Your task to perform on an android device: change notifications settings Image 0: 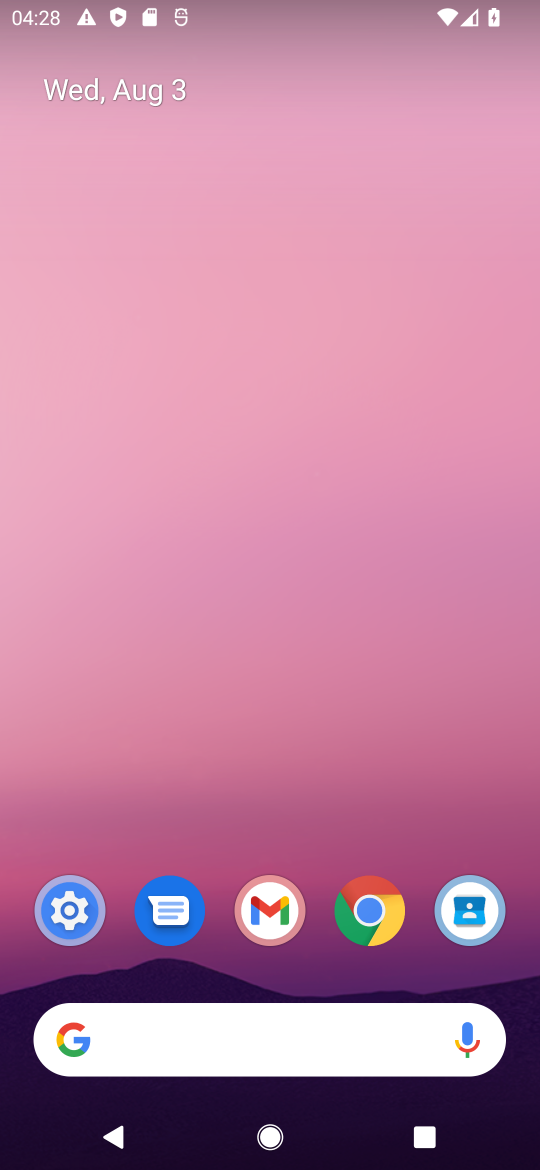
Step 0: drag from (324, 831) to (319, 36)
Your task to perform on an android device: change notifications settings Image 1: 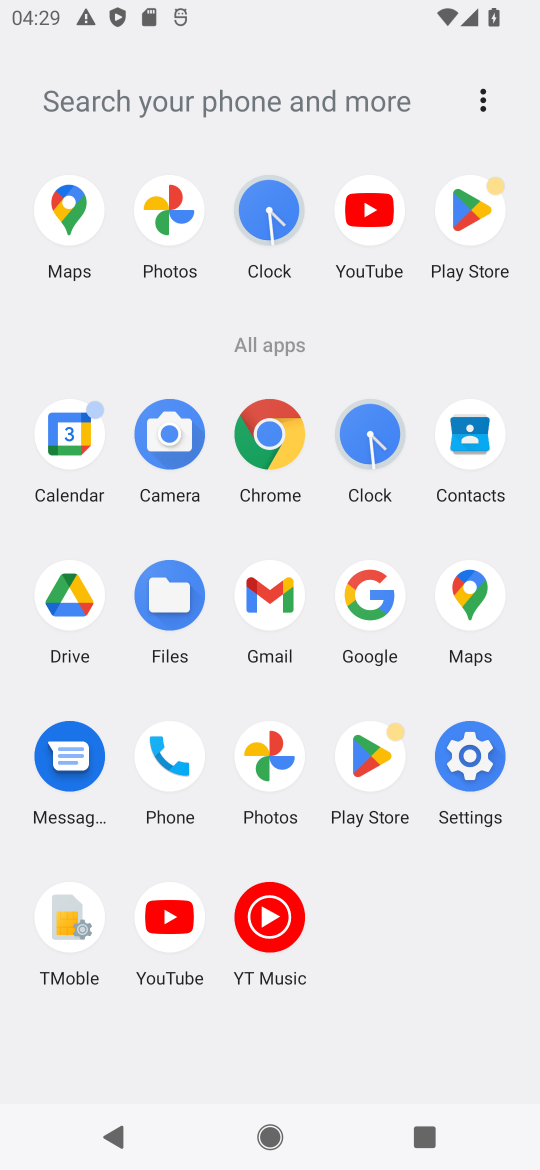
Step 1: click (473, 755)
Your task to perform on an android device: change notifications settings Image 2: 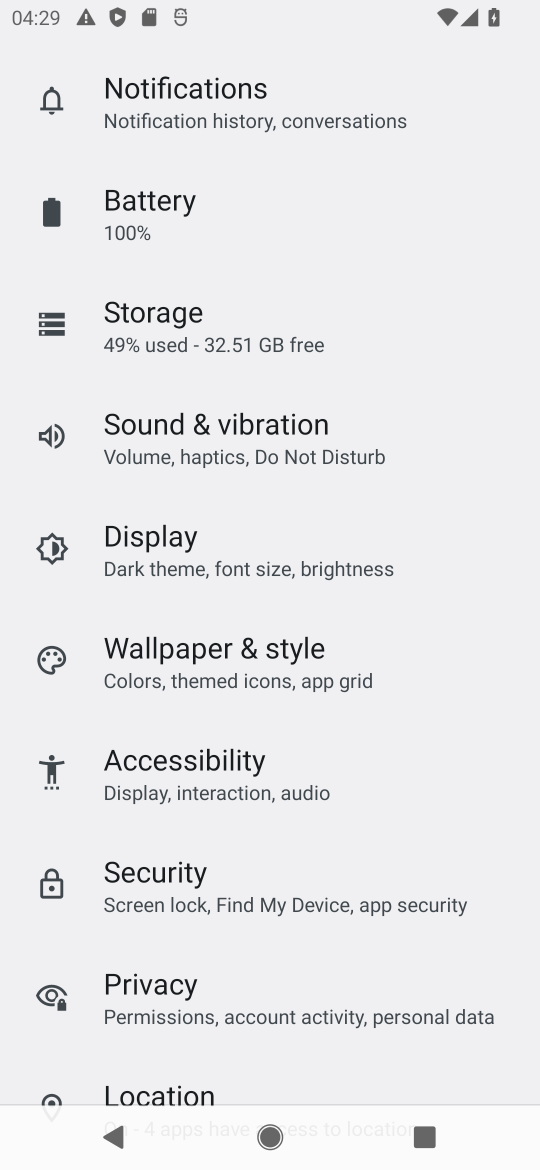
Step 2: click (128, 112)
Your task to perform on an android device: change notifications settings Image 3: 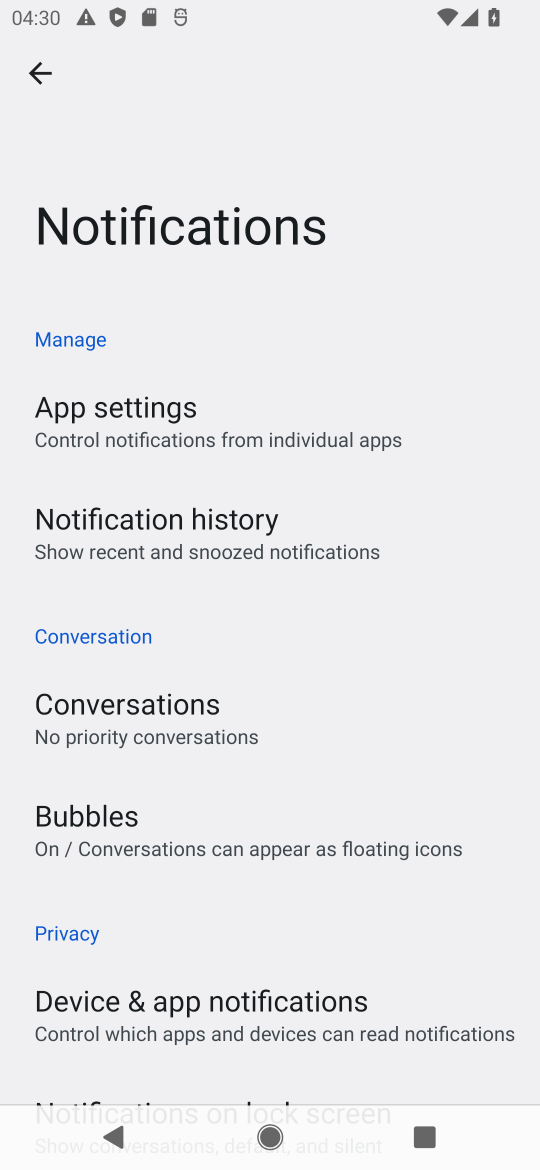
Step 3: task complete